Your task to perform on an android device: Open sound settings Image 0: 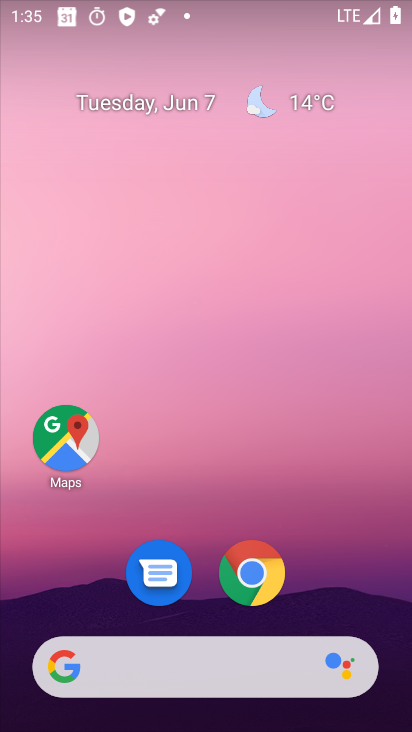
Step 0: drag from (212, 595) to (256, 2)
Your task to perform on an android device: Open sound settings Image 1: 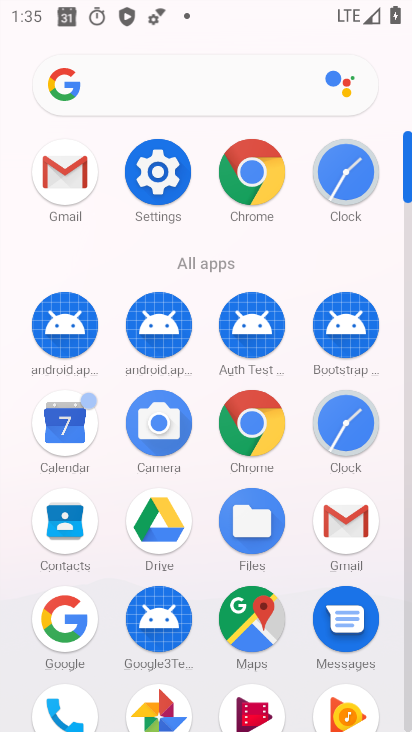
Step 1: click (154, 164)
Your task to perform on an android device: Open sound settings Image 2: 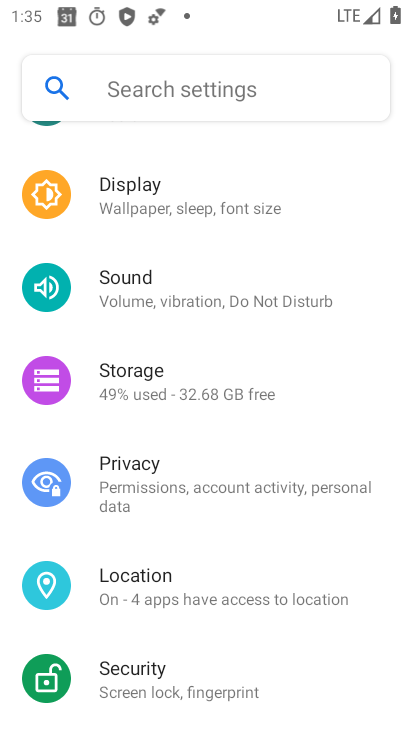
Step 2: click (174, 279)
Your task to perform on an android device: Open sound settings Image 3: 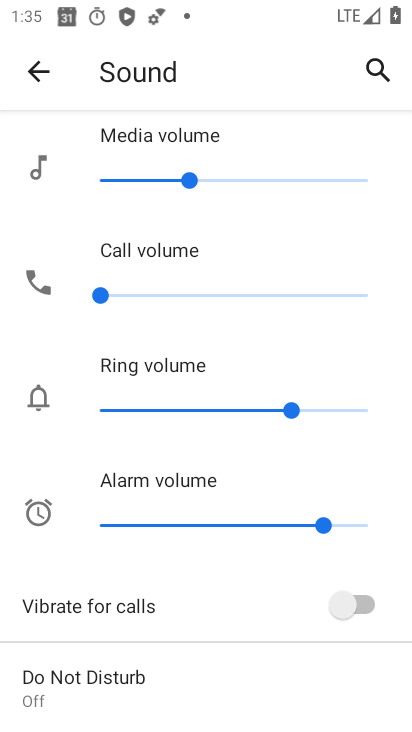
Step 3: drag from (219, 622) to (201, 13)
Your task to perform on an android device: Open sound settings Image 4: 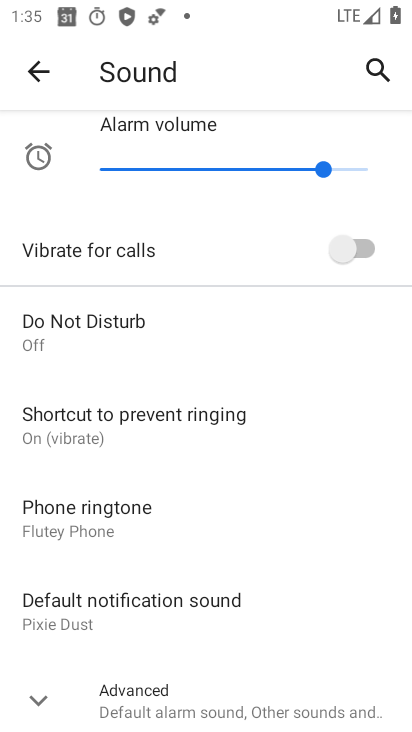
Step 4: click (36, 694)
Your task to perform on an android device: Open sound settings Image 5: 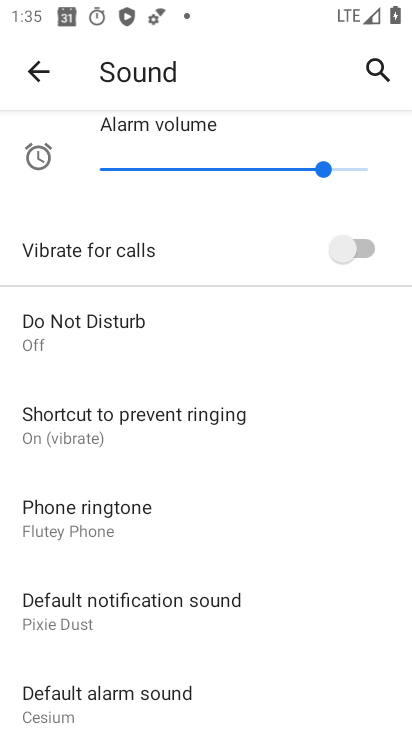
Step 5: task complete